Your task to perform on an android device: check out phone information Image 0: 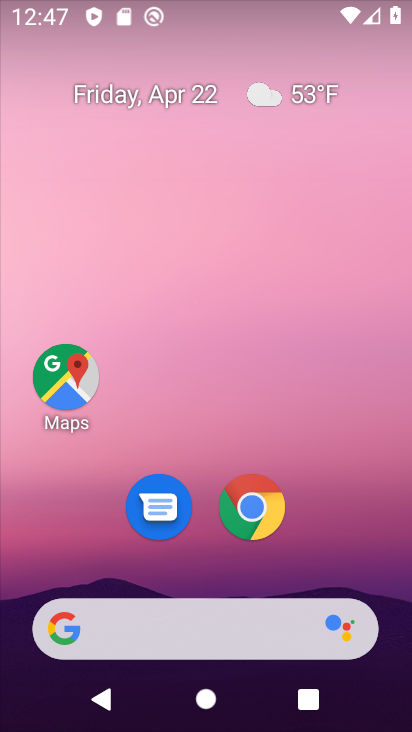
Step 0: drag from (193, 543) to (272, 217)
Your task to perform on an android device: check out phone information Image 1: 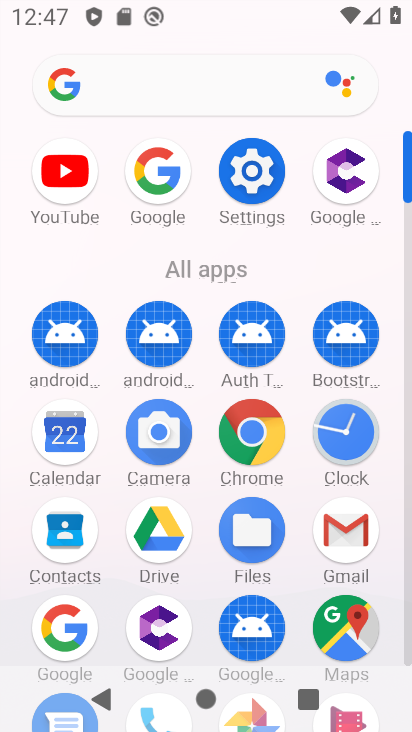
Step 1: drag from (297, 567) to (307, 233)
Your task to perform on an android device: check out phone information Image 2: 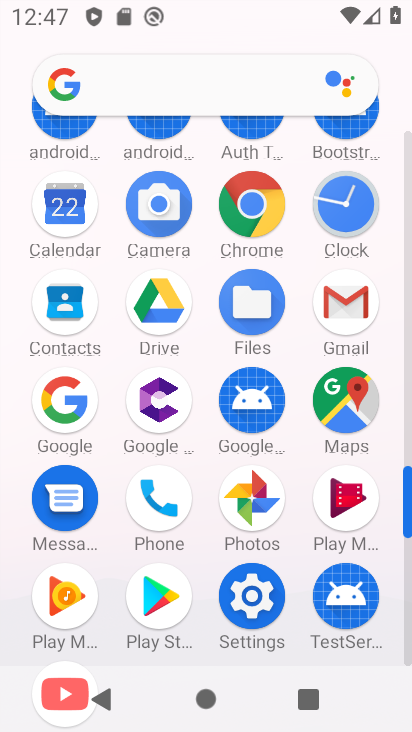
Step 2: click (249, 614)
Your task to perform on an android device: check out phone information Image 3: 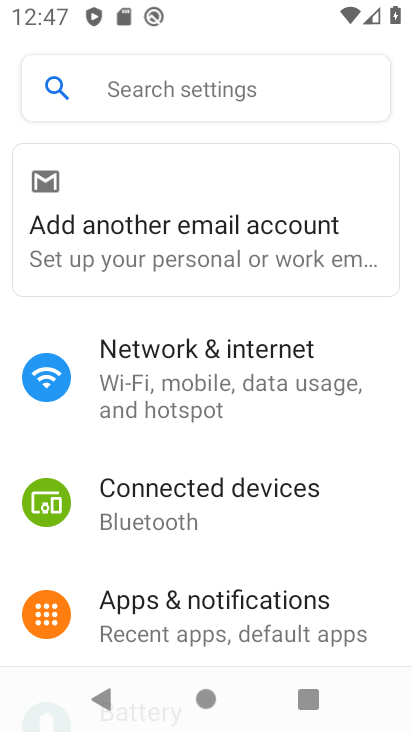
Step 3: drag from (298, 583) to (258, 228)
Your task to perform on an android device: check out phone information Image 4: 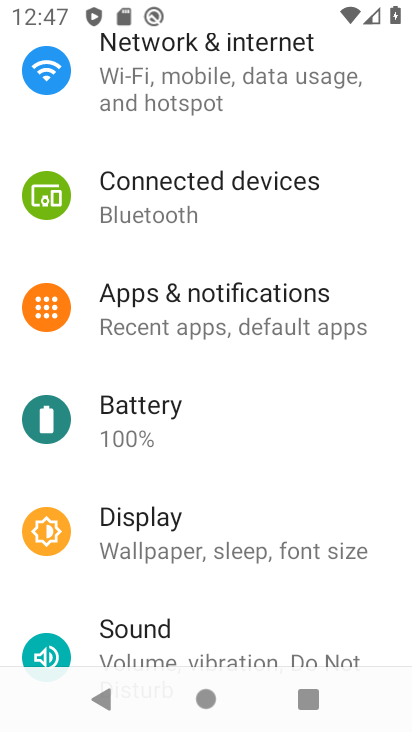
Step 4: drag from (185, 460) to (289, 15)
Your task to perform on an android device: check out phone information Image 5: 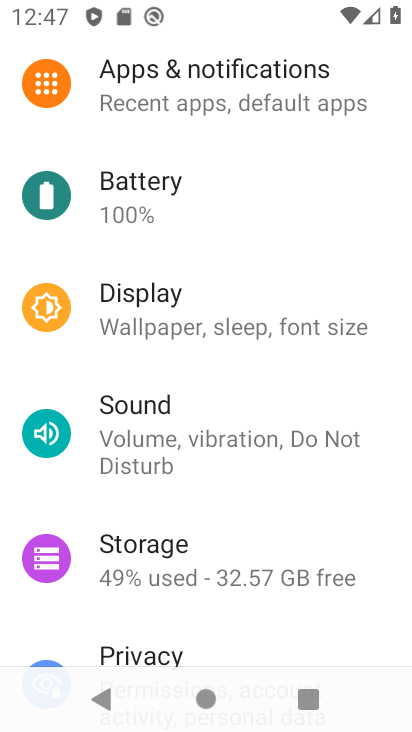
Step 5: drag from (181, 454) to (196, 137)
Your task to perform on an android device: check out phone information Image 6: 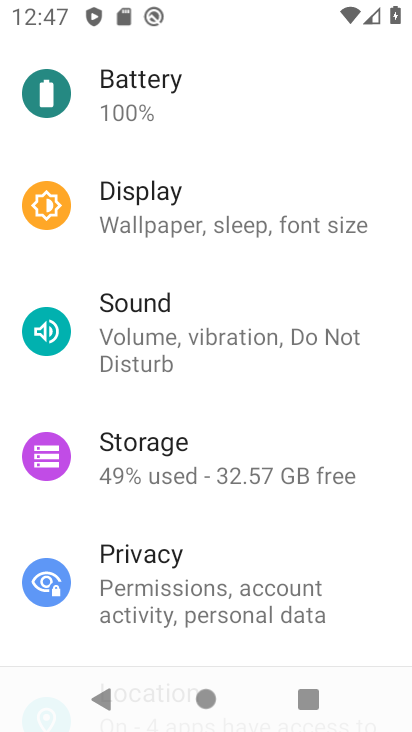
Step 6: drag from (229, 521) to (221, 172)
Your task to perform on an android device: check out phone information Image 7: 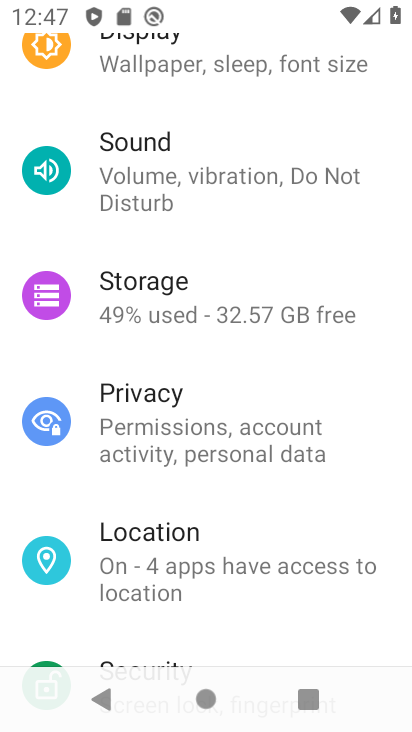
Step 7: drag from (214, 488) to (224, 163)
Your task to perform on an android device: check out phone information Image 8: 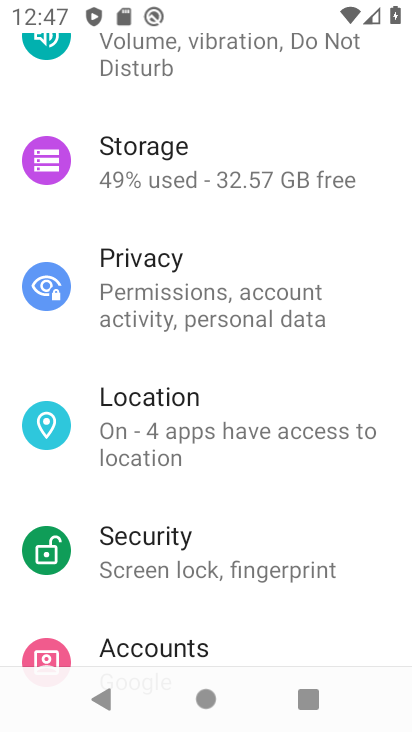
Step 8: drag from (234, 509) to (233, 79)
Your task to perform on an android device: check out phone information Image 9: 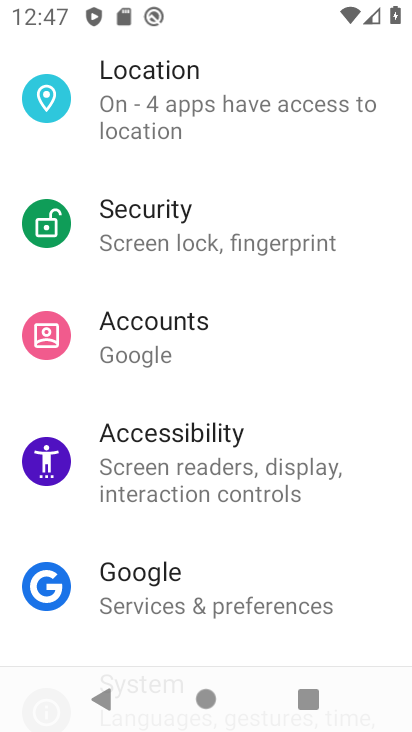
Step 9: drag from (174, 442) to (243, 62)
Your task to perform on an android device: check out phone information Image 10: 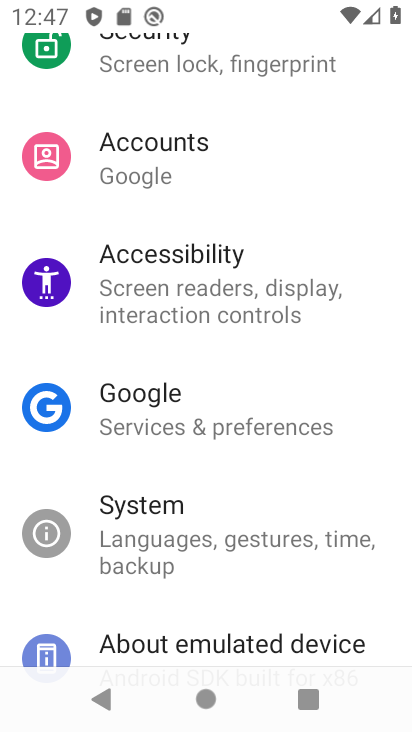
Step 10: drag from (216, 394) to (197, 0)
Your task to perform on an android device: check out phone information Image 11: 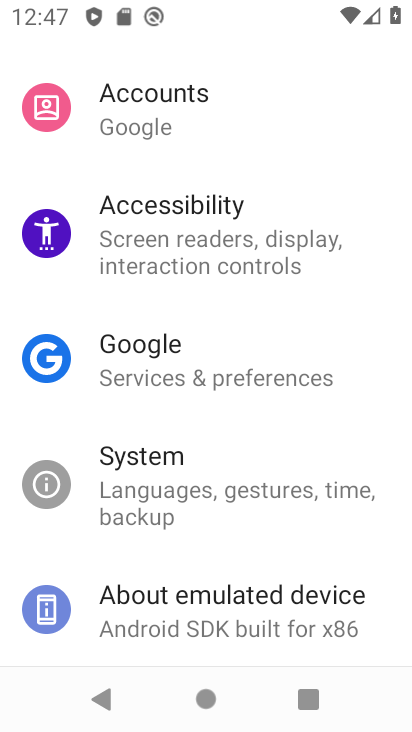
Step 11: click (173, 595)
Your task to perform on an android device: check out phone information Image 12: 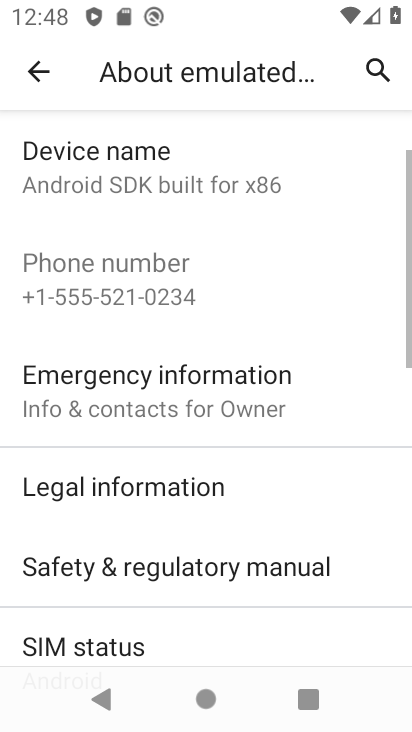
Step 12: task complete